Your task to perform on an android device: open the mobile data screen to see how much data has been used Image 0: 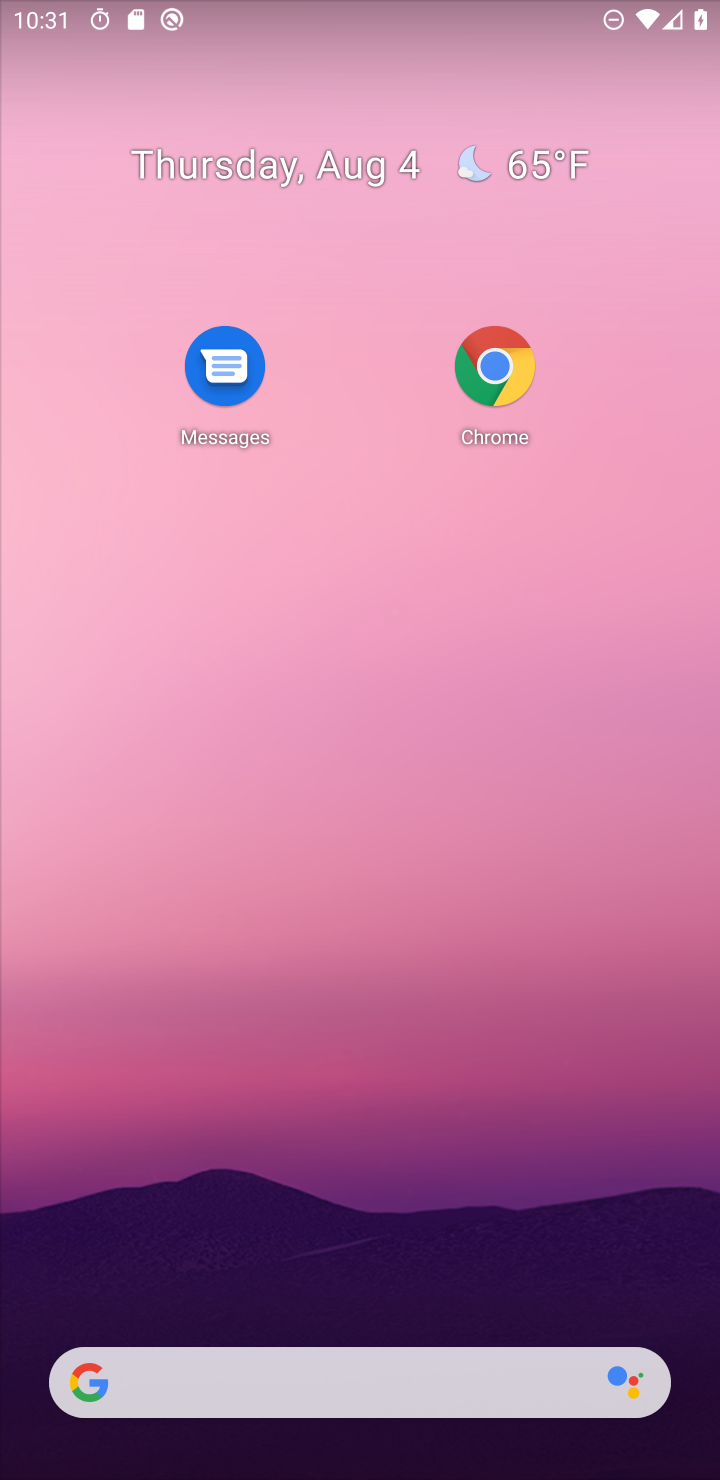
Step 0: drag from (425, 1438) to (314, 356)
Your task to perform on an android device: open the mobile data screen to see how much data has been used Image 1: 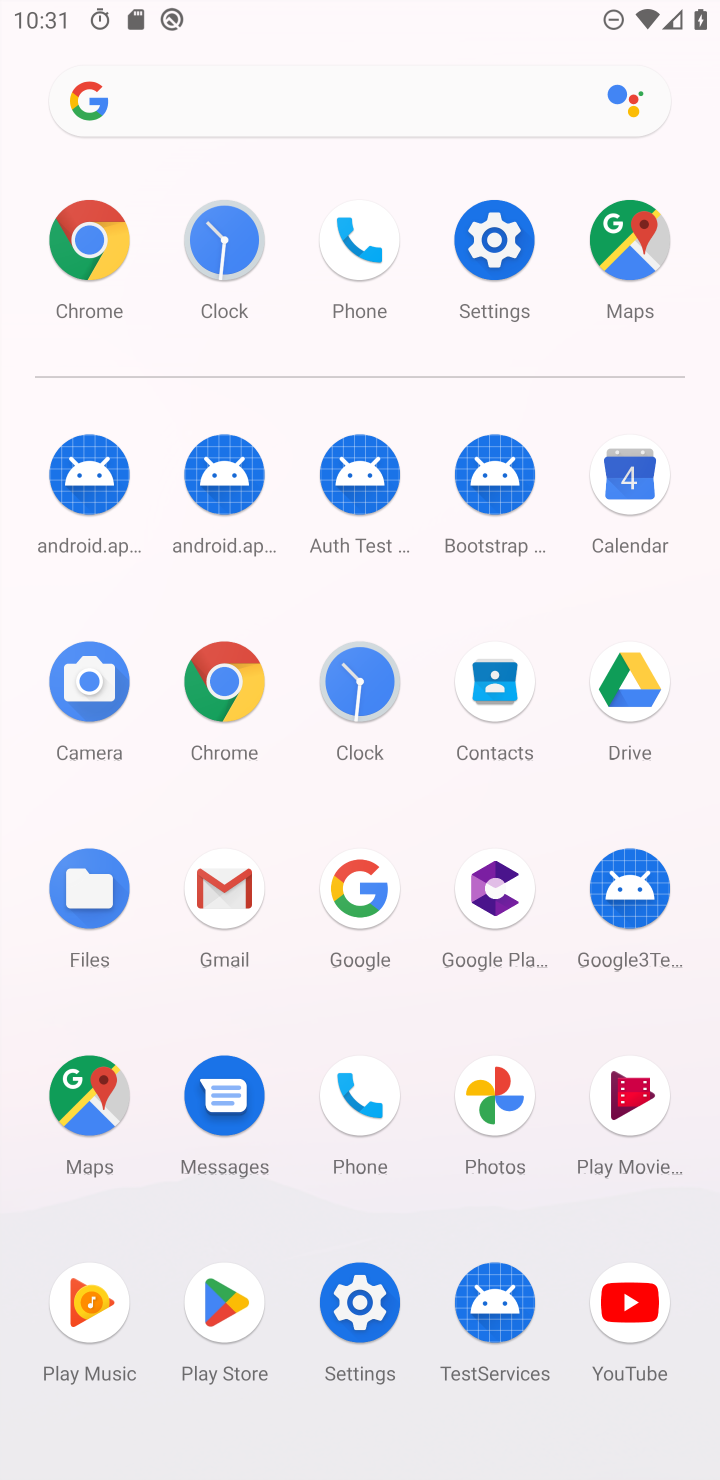
Step 1: click (362, 1333)
Your task to perform on an android device: open the mobile data screen to see how much data has been used Image 2: 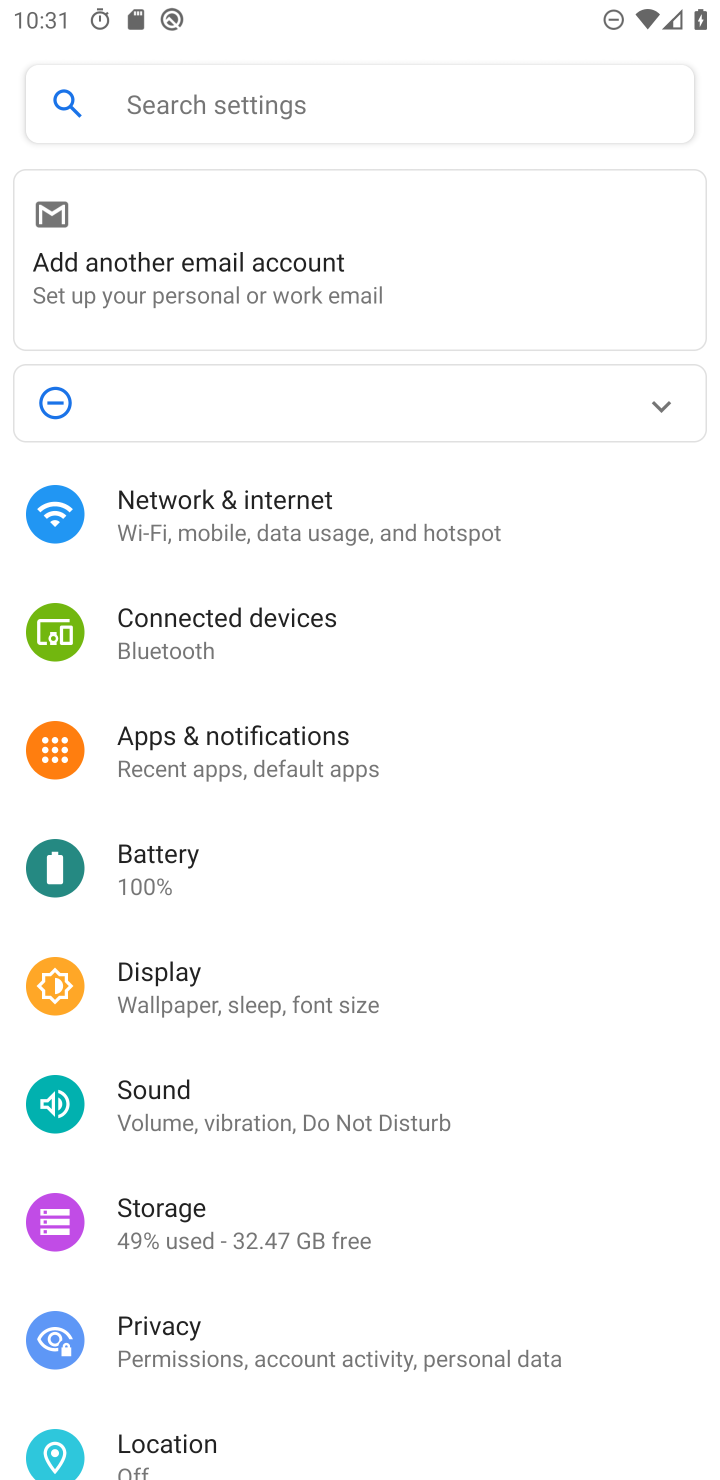
Step 2: click (206, 110)
Your task to perform on an android device: open the mobile data screen to see how much data has been used Image 3: 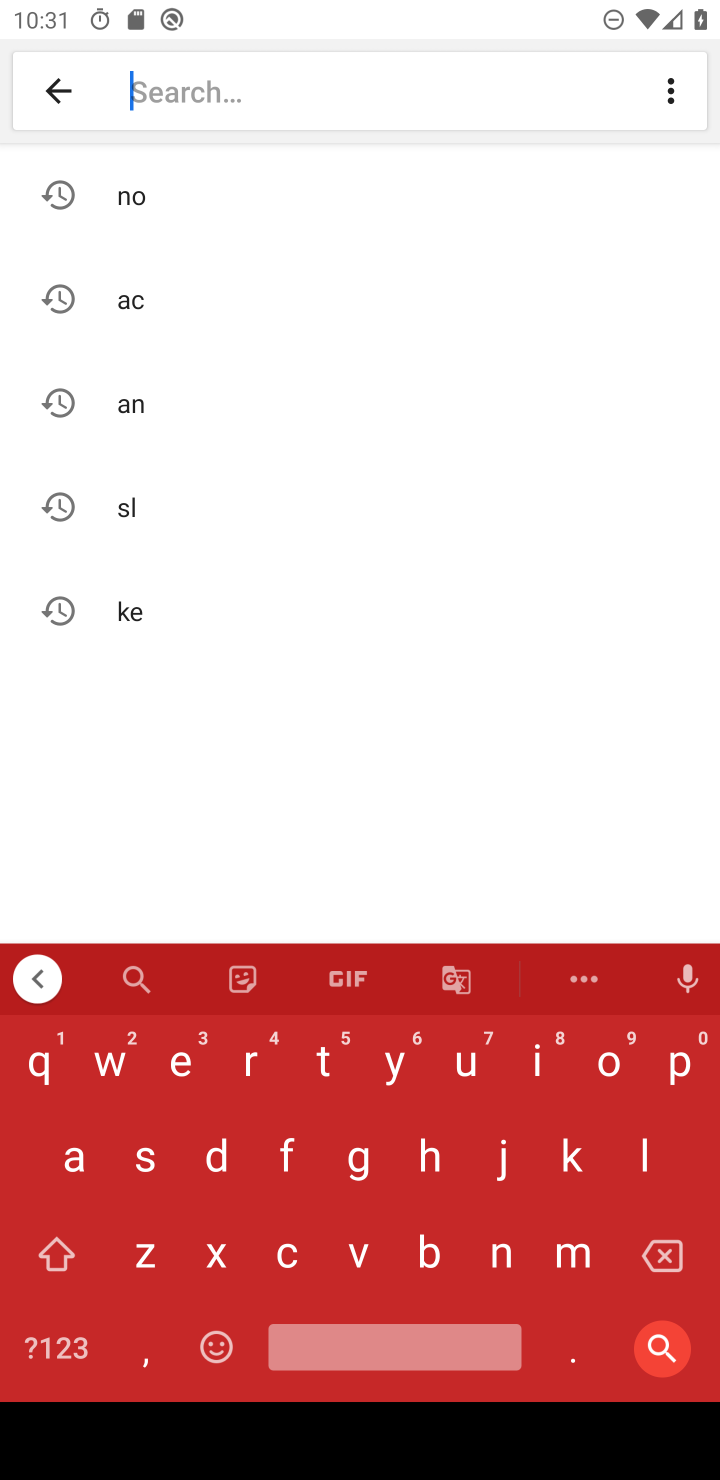
Step 3: click (208, 1167)
Your task to perform on an android device: open the mobile data screen to see how much data has been used Image 4: 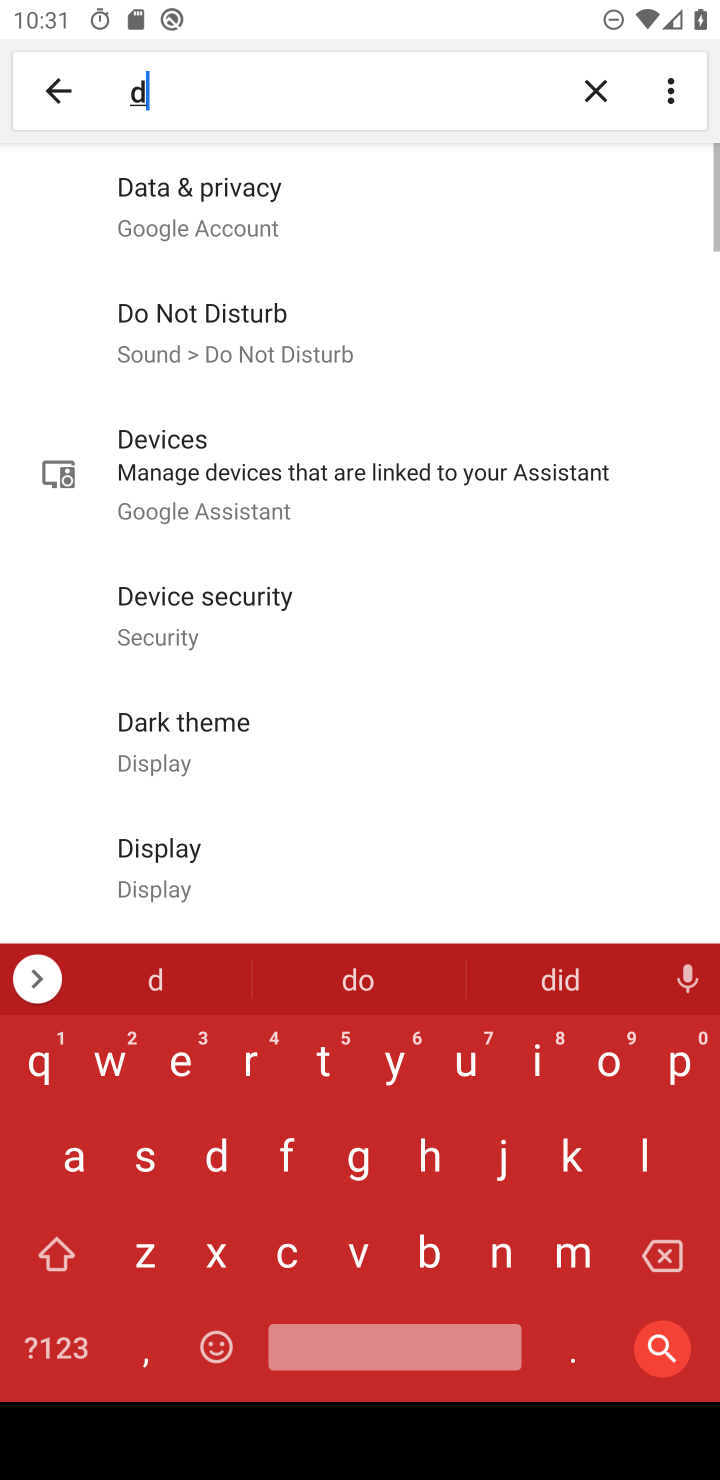
Step 4: click (60, 1150)
Your task to perform on an android device: open the mobile data screen to see how much data has been used Image 5: 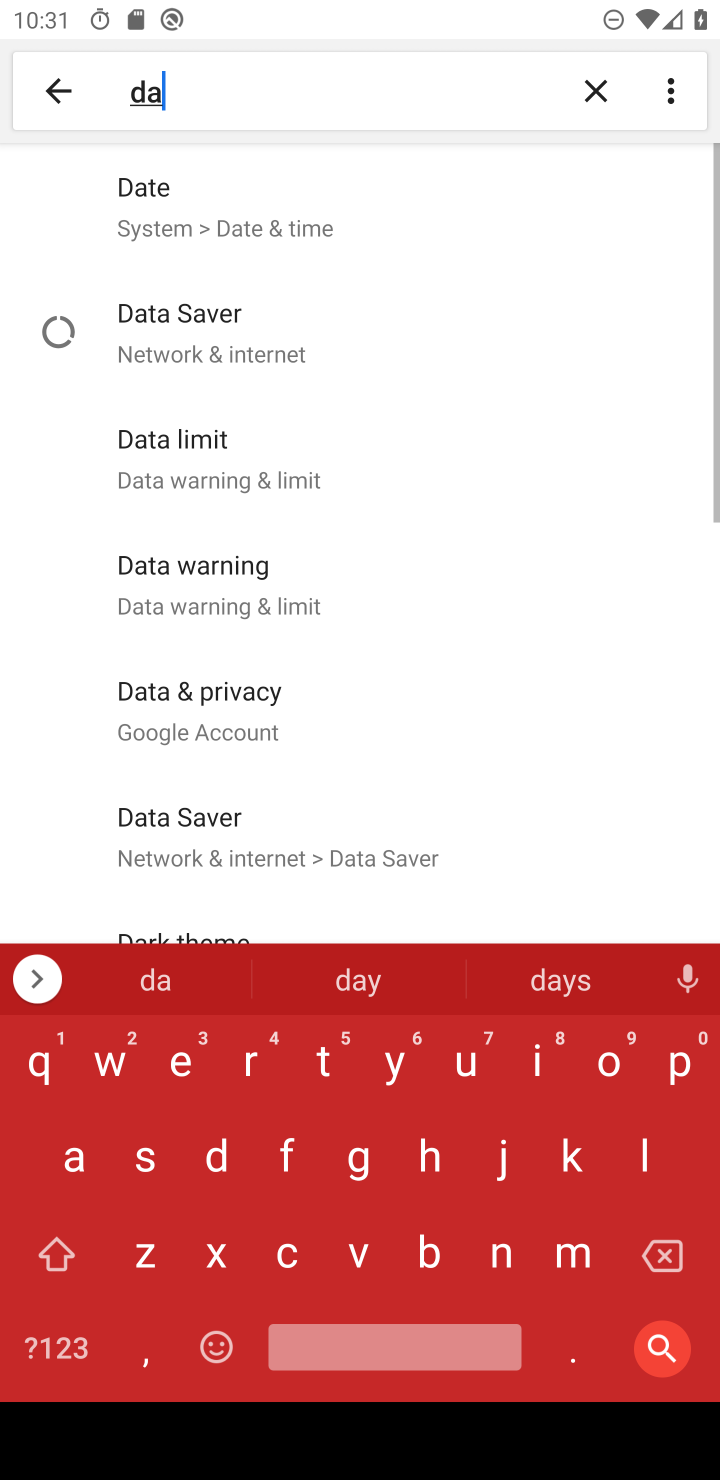
Step 5: click (325, 1064)
Your task to perform on an android device: open the mobile data screen to see how much data has been used Image 6: 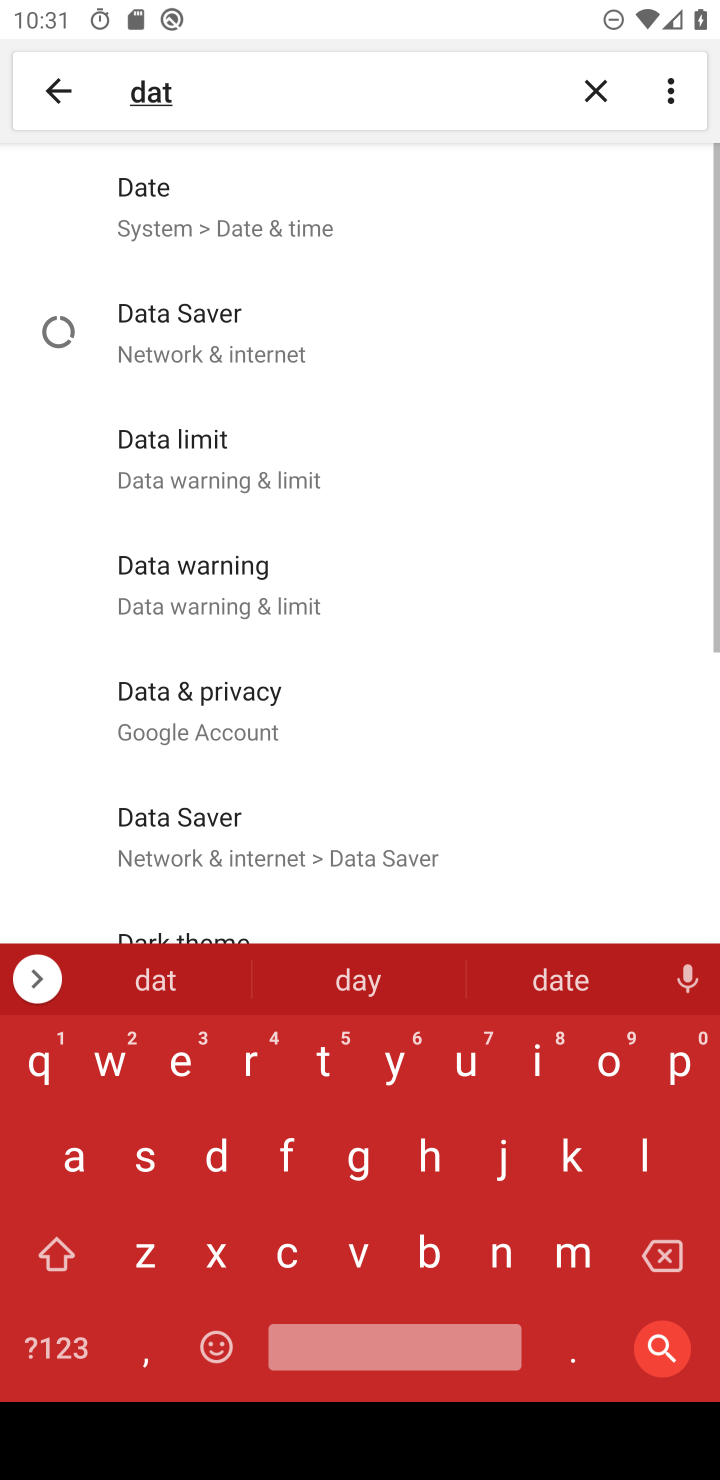
Step 6: click (67, 1158)
Your task to perform on an android device: open the mobile data screen to see how much data has been used Image 7: 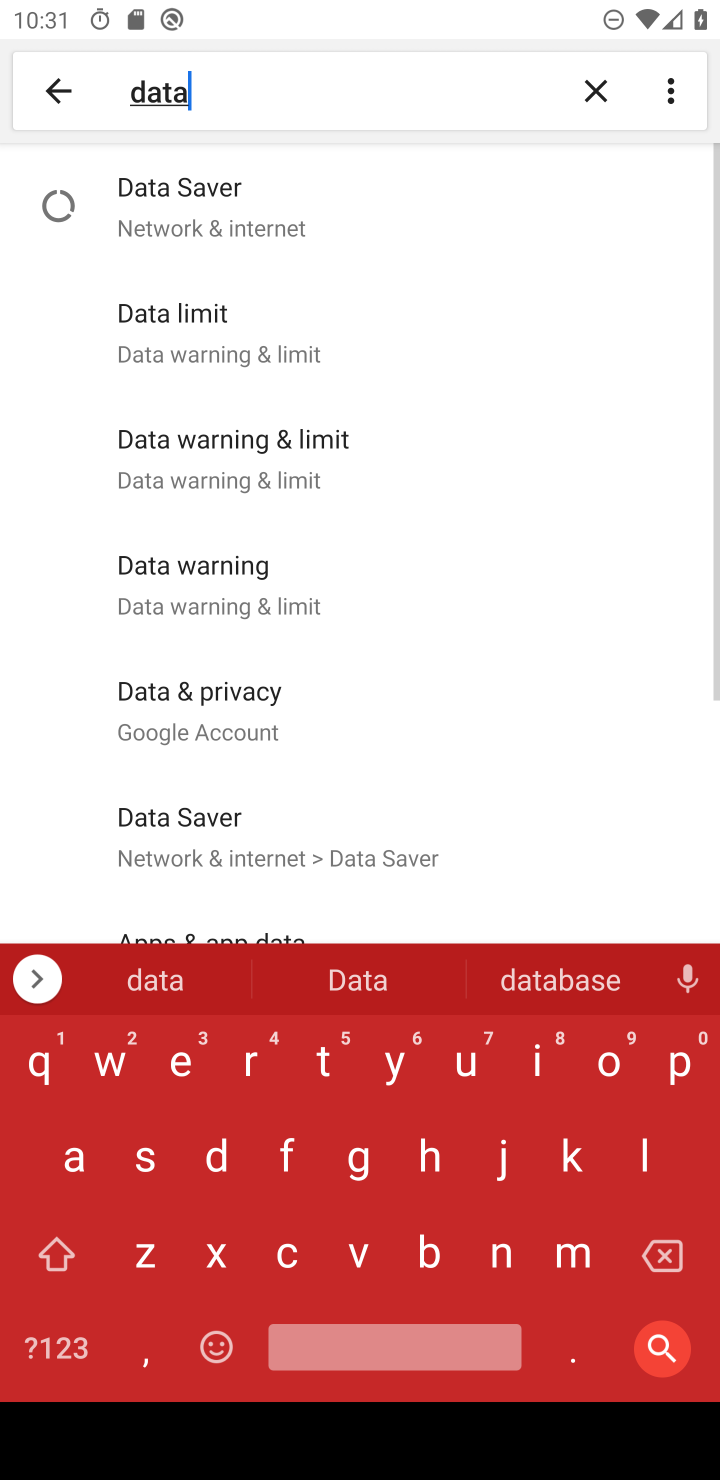
Step 7: click (343, 1335)
Your task to perform on an android device: open the mobile data screen to see how much data has been used Image 8: 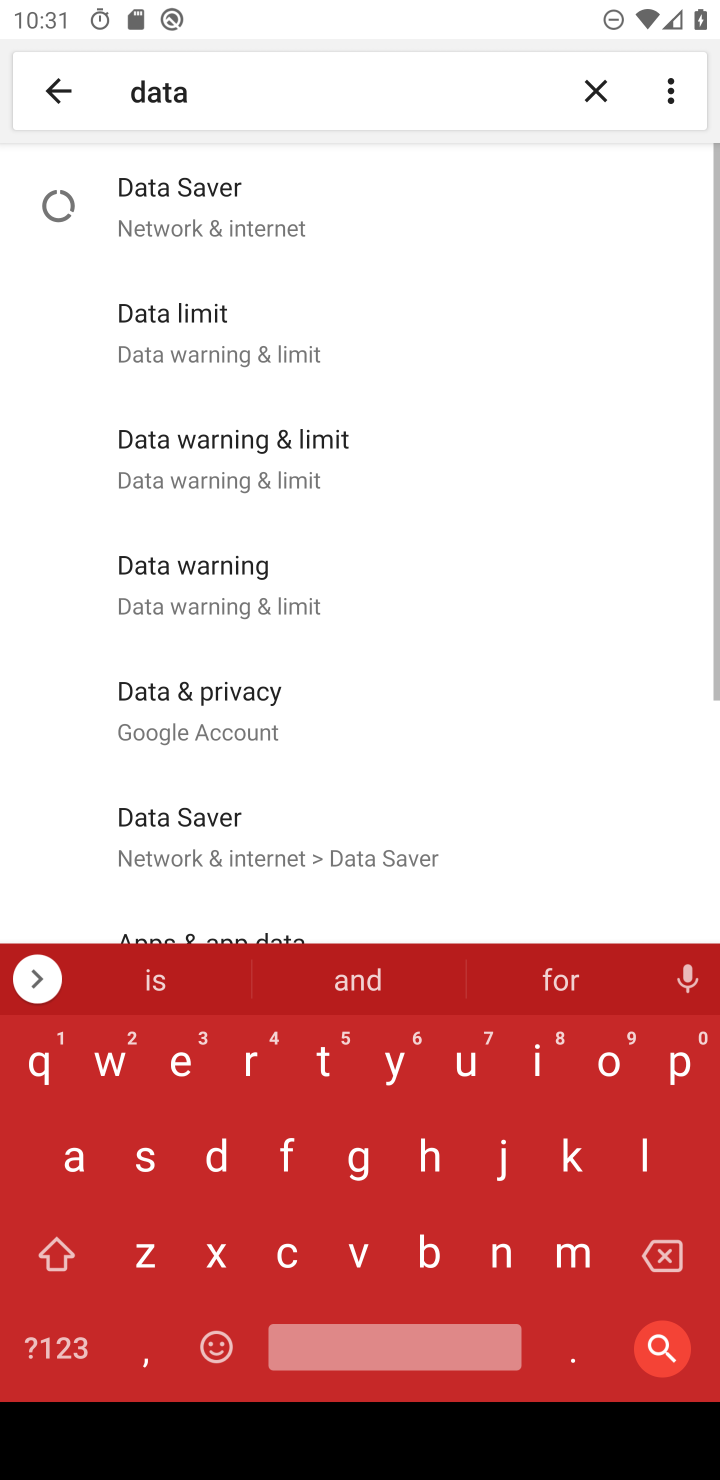
Step 8: click (470, 1063)
Your task to perform on an android device: open the mobile data screen to see how much data has been used Image 9: 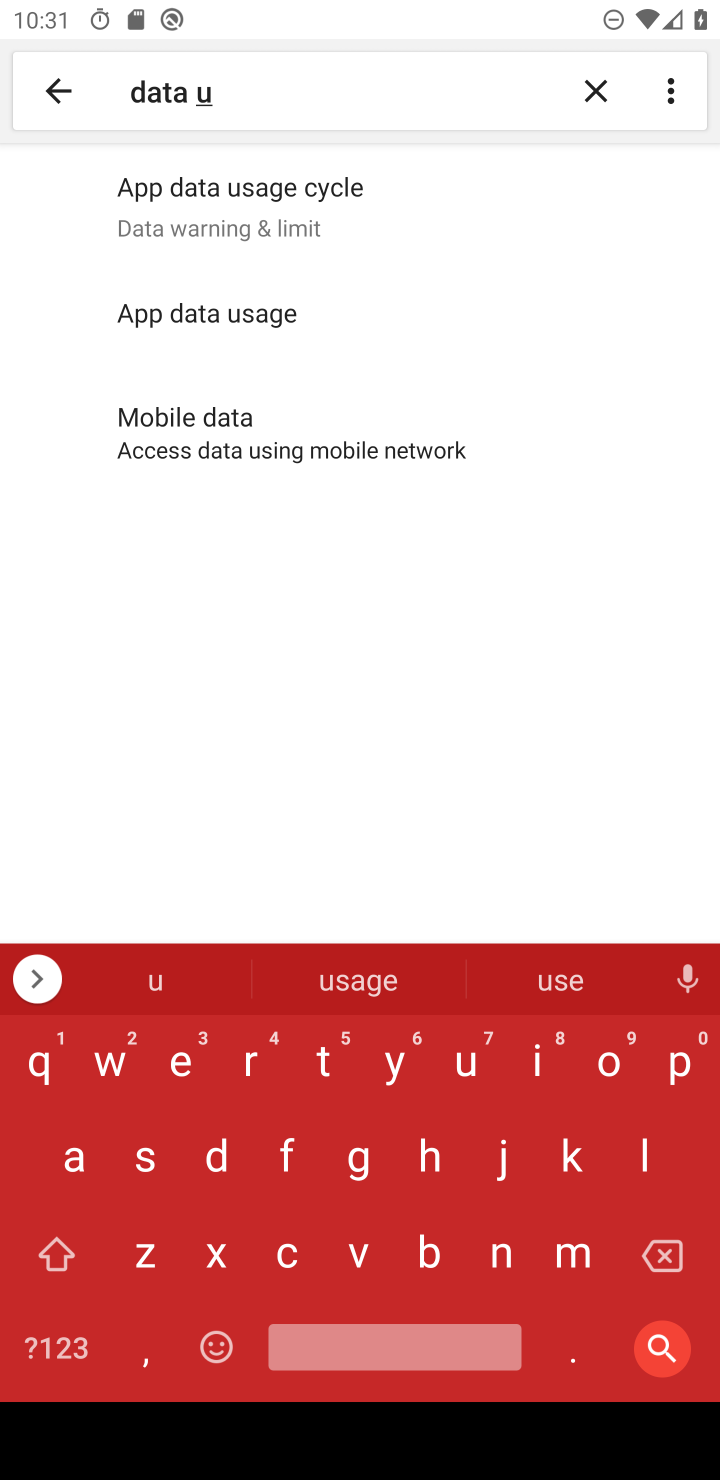
Step 9: click (268, 310)
Your task to perform on an android device: open the mobile data screen to see how much data has been used Image 10: 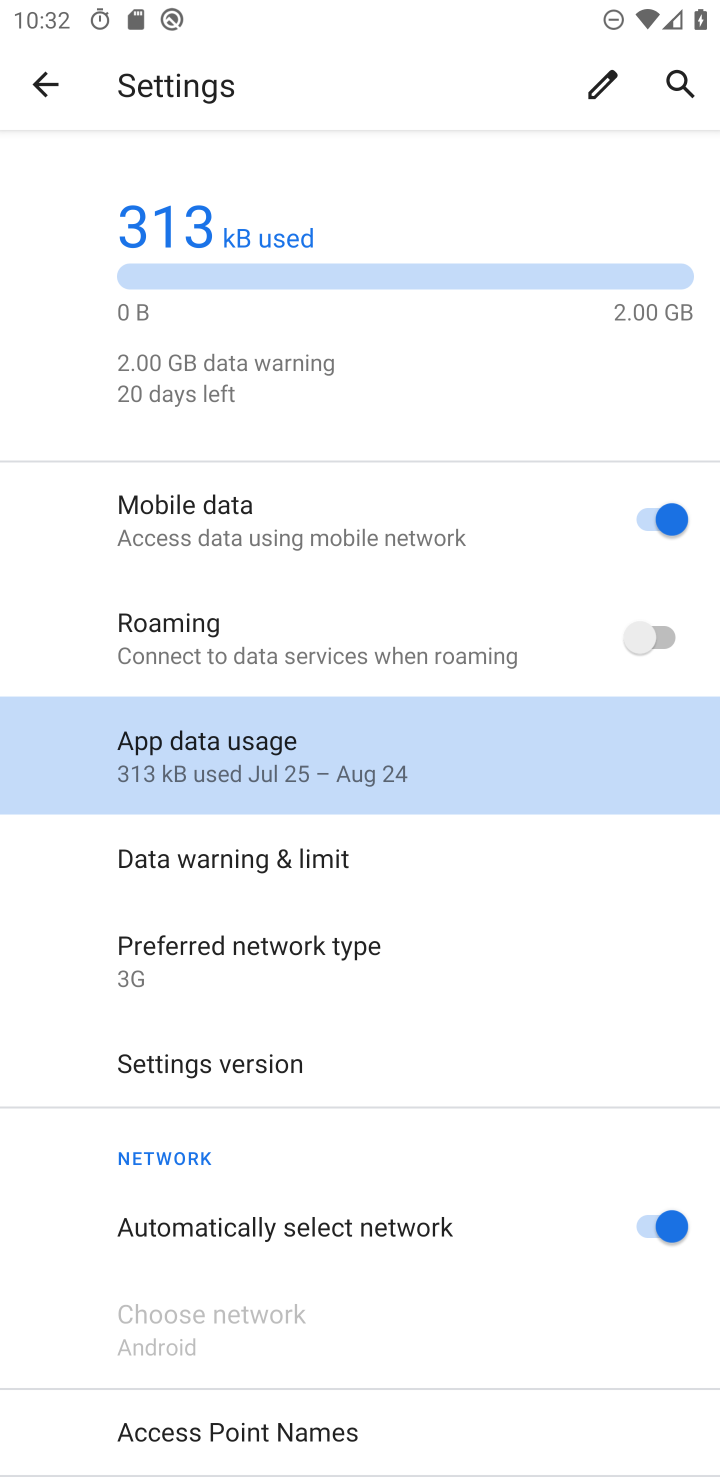
Step 10: click (321, 766)
Your task to perform on an android device: open the mobile data screen to see how much data has been used Image 11: 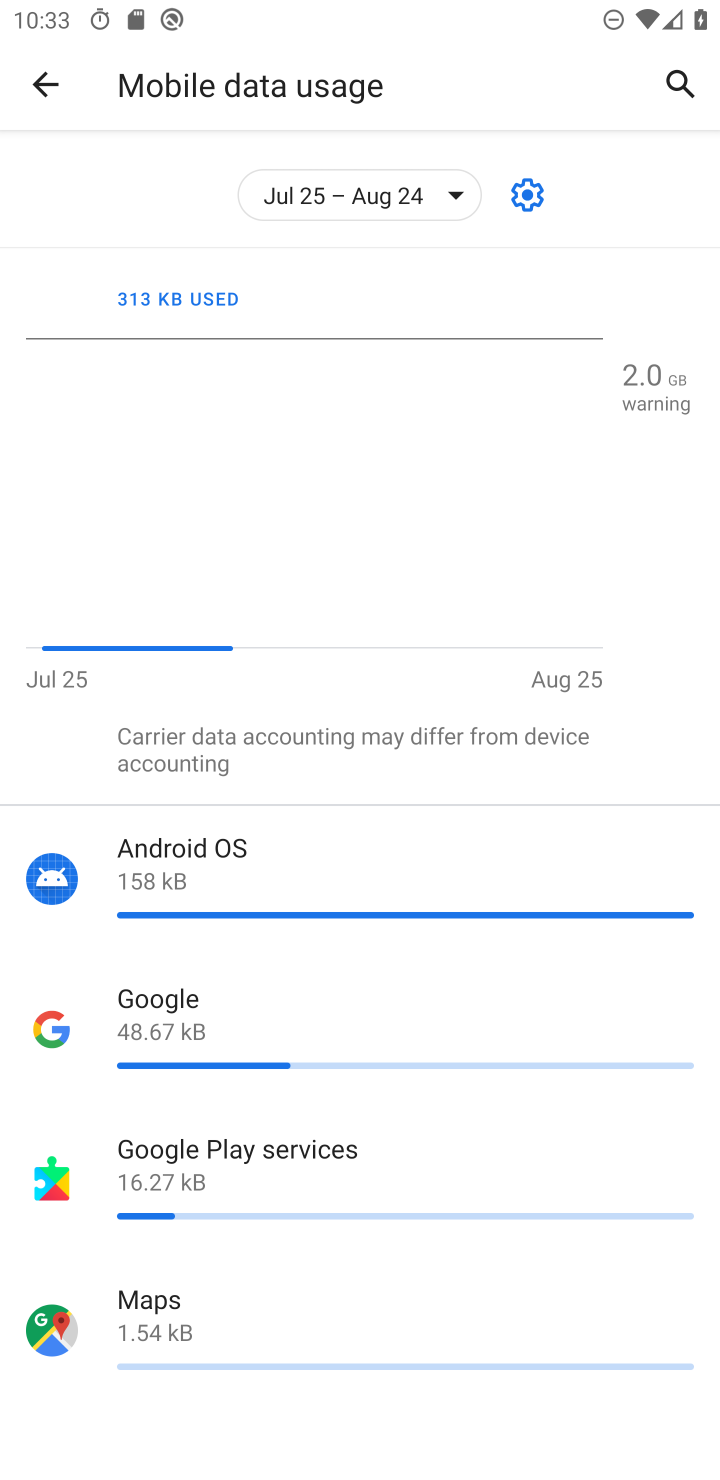
Step 11: task complete